Your task to perform on an android device: See recent photos Image 0: 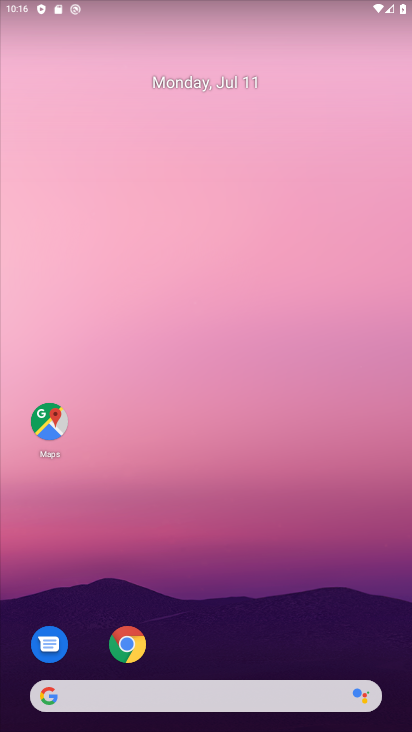
Step 0: click (396, 322)
Your task to perform on an android device: See recent photos Image 1: 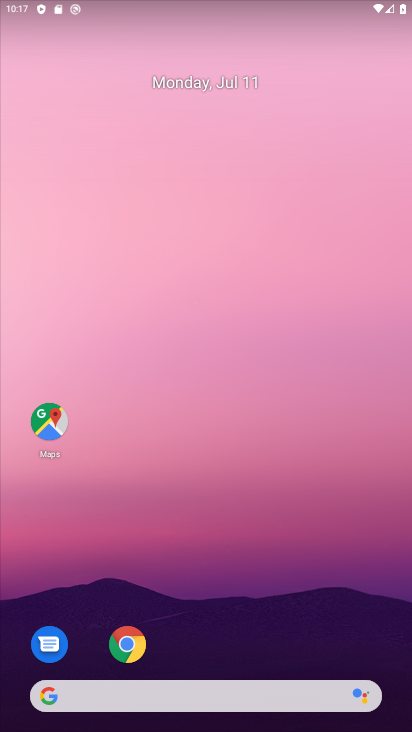
Step 1: drag from (222, 612) to (319, 1)
Your task to perform on an android device: See recent photos Image 2: 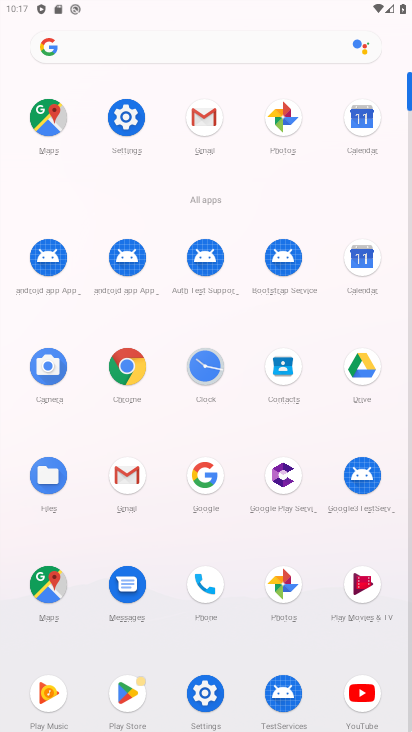
Step 2: click (291, 599)
Your task to perform on an android device: See recent photos Image 3: 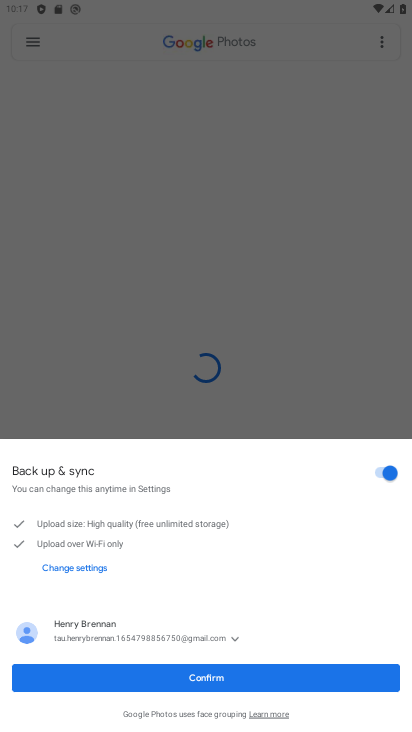
Step 3: click (242, 680)
Your task to perform on an android device: See recent photos Image 4: 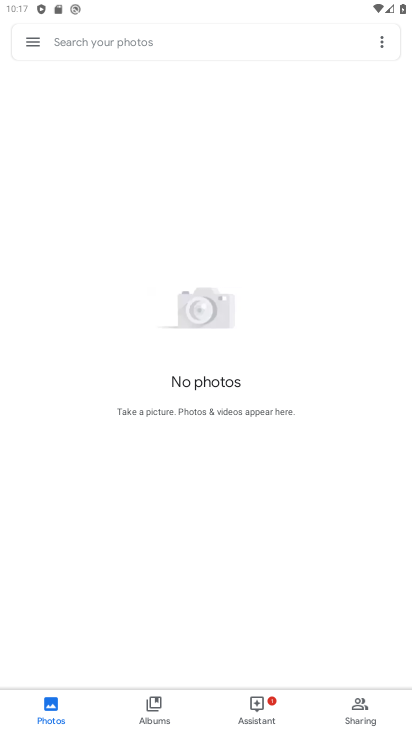
Step 4: task complete